Your task to perform on an android device: Go to Yahoo.com Image 0: 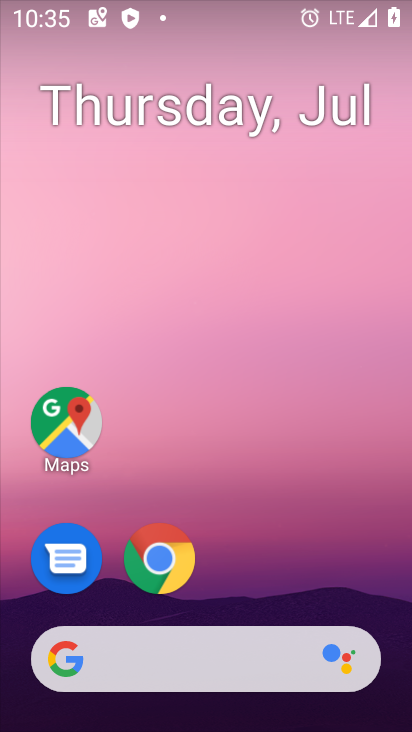
Step 0: drag from (304, 573) to (343, 51)
Your task to perform on an android device: Go to Yahoo.com Image 1: 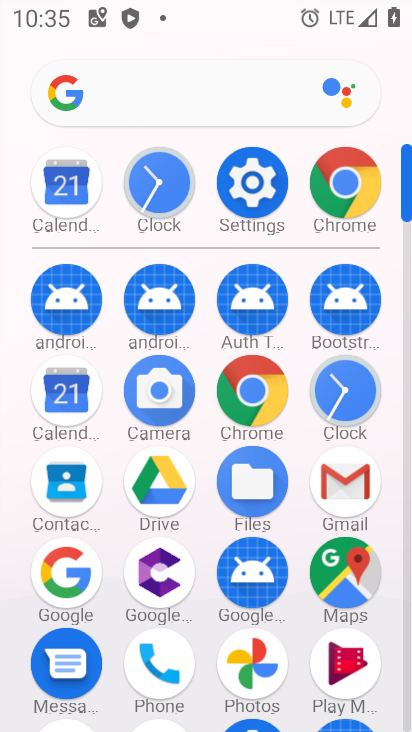
Step 1: click (257, 392)
Your task to perform on an android device: Go to Yahoo.com Image 2: 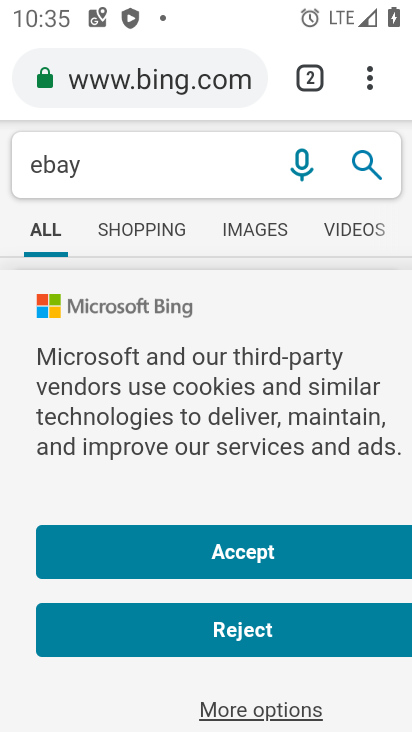
Step 2: click (205, 92)
Your task to perform on an android device: Go to Yahoo.com Image 3: 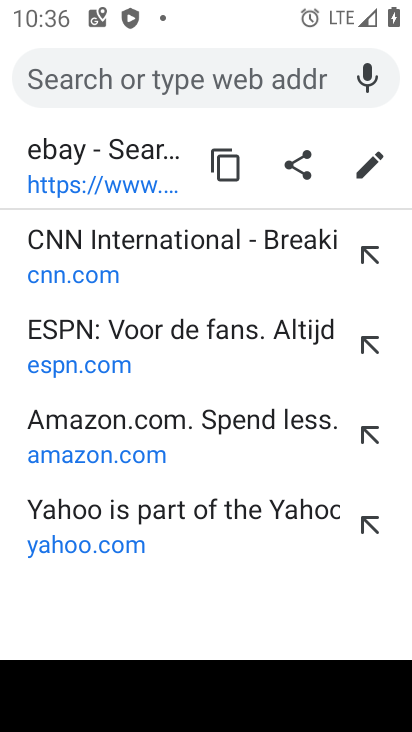
Step 3: type "yahoo.com"
Your task to perform on an android device: Go to Yahoo.com Image 4: 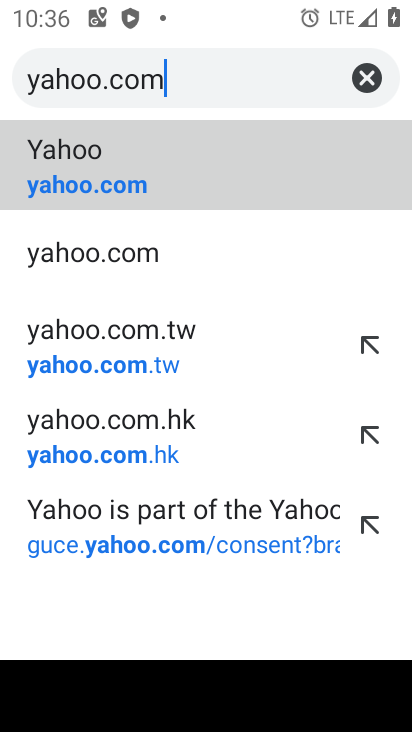
Step 4: click (194, 188)
Your task to perform on an android device: Go to Yahoo.com Image 5: 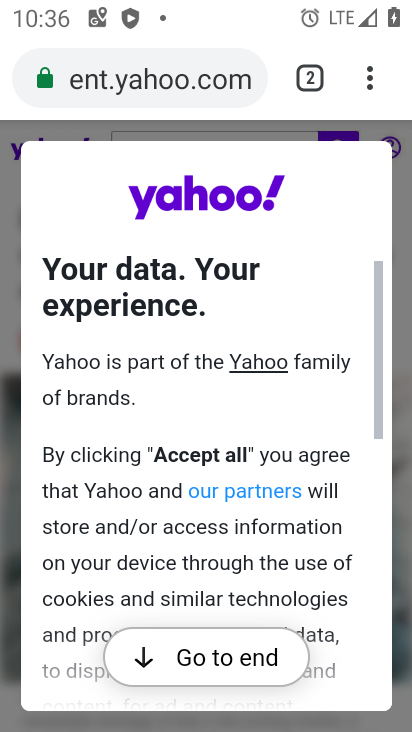
Step 5: task complete